Your task to perform on an android device: all mails in gmail Image 0: 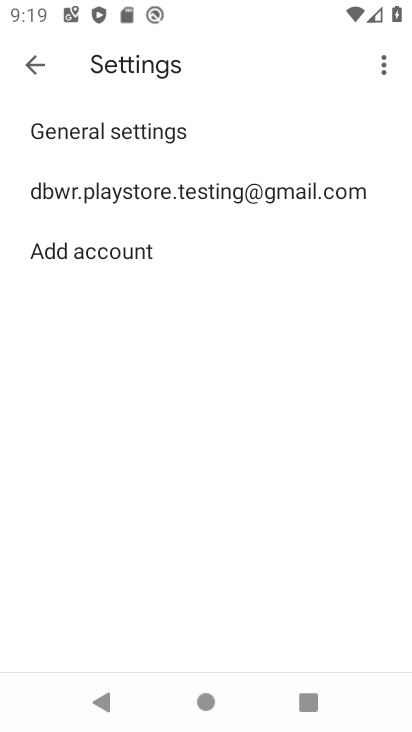
Step 0: click (21, 62)
Your task to perform on an android device: all mails in gmail Image 1: 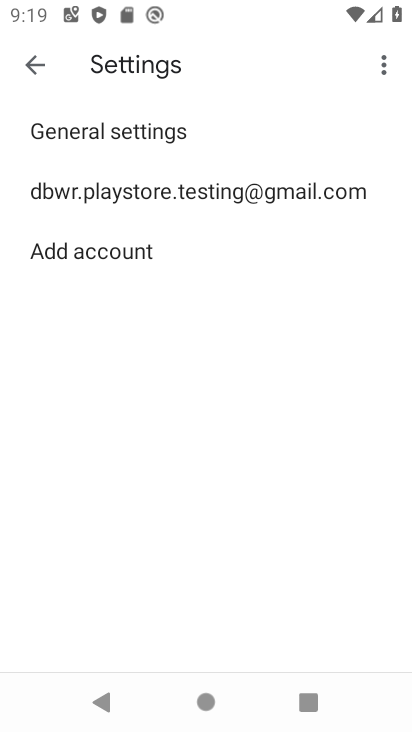
Step 1: click (34, 57)
Your task to perform on an android device: all mails in gmail Image 2: 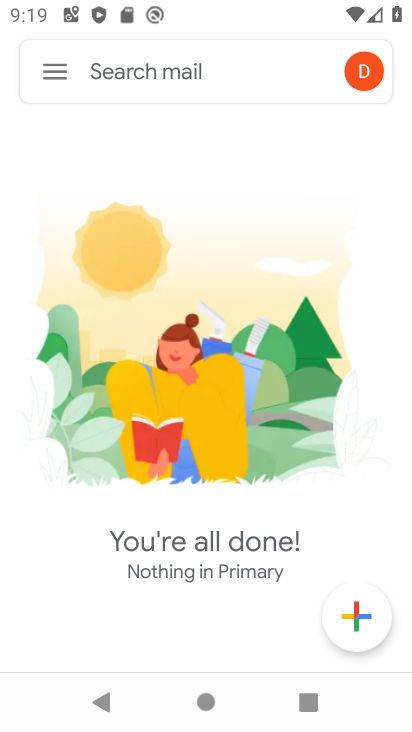
Step 2: click (41, 67)
Your task to perform on an android device: all mails in gmail Image 3: 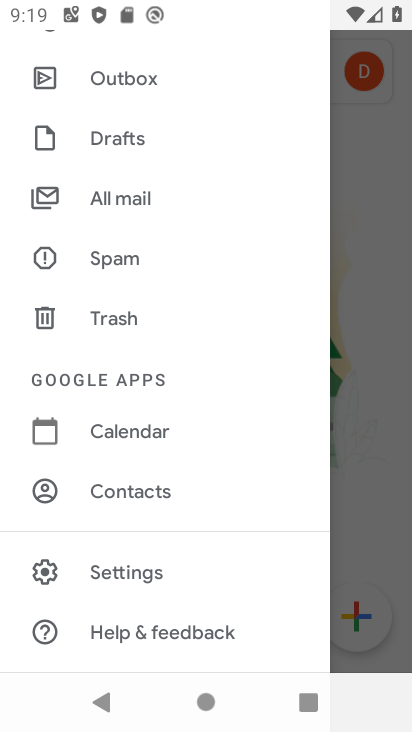
Step 3: drag from (251, 479) to (238, 334)
Your task to perform on an android device: all mails in gmail Image 4: 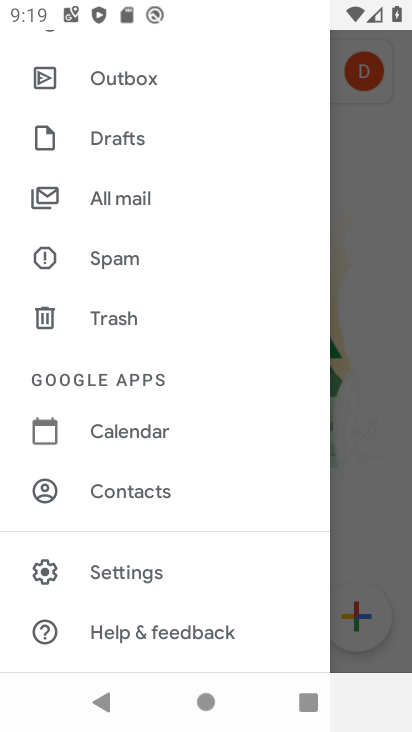
Step 4: click (138, 193)
Your task to perform on an android device: all mails in gmail Image 5: 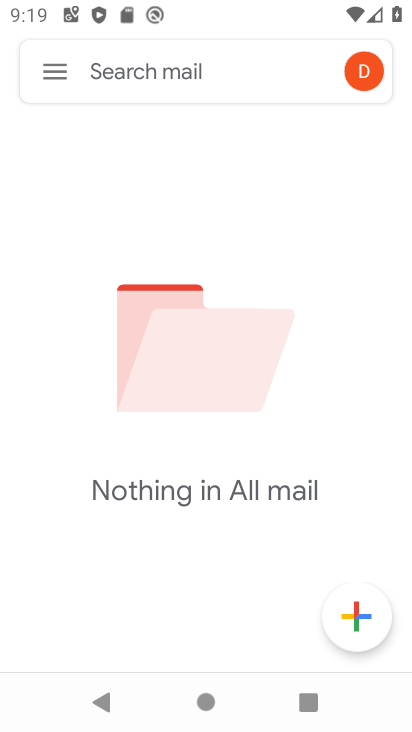
Step 5: task complete